Your task to perform on an android device: What's on my calendar tomorrow? Image 0: 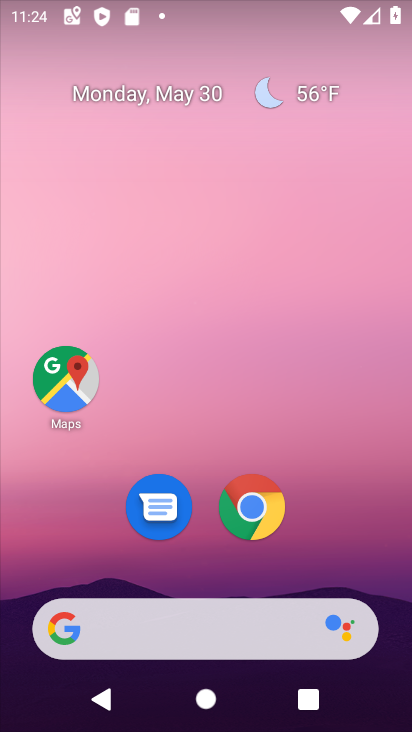
Step 0: press home button
Your task to perform on an android device: What's on my calendar tomorrow? Image 1: 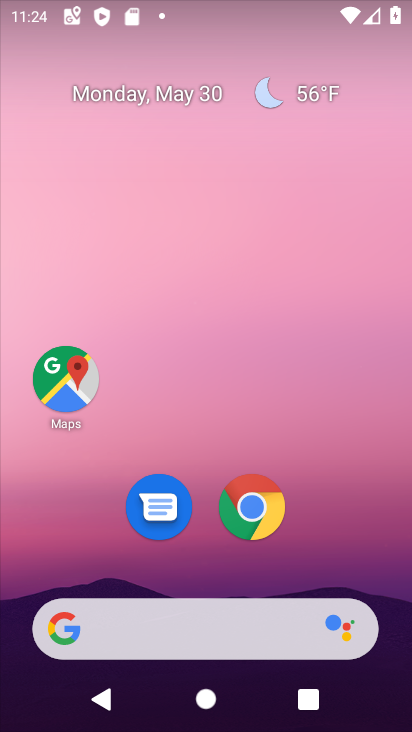
Step 1: drag from (310, 547) to (239, 50)
Your task to perform on an android device: What's on my calendar tomorrow? Image 2: 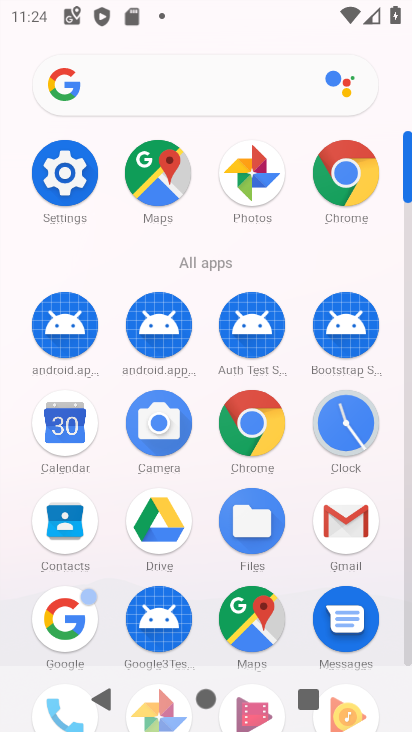
Step 2: click (54, 434)
Your task to perform on an android device: What's on my calendar tomorrow? Image 3: 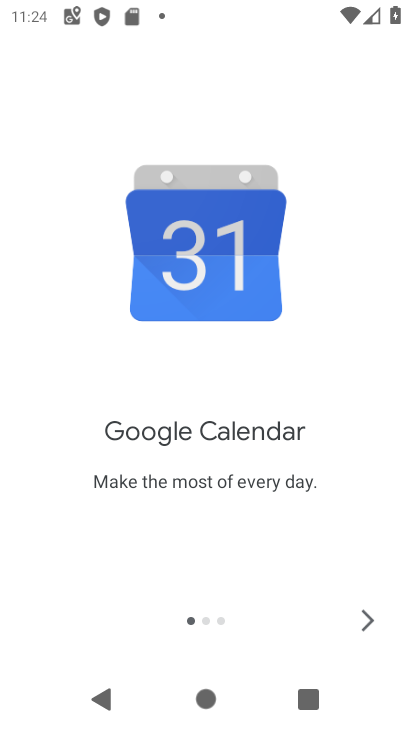
Step 3: click (382, 621)
Your task to perform on an android device: What's on my calendar tomorrow? Image 4: 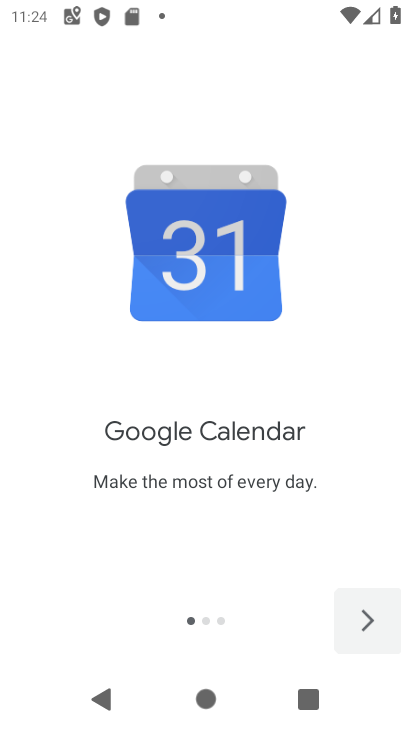
Step 4: click (381, 621)
Your task to perform on an android device: What's on my calendar tomorrow? Image 5: 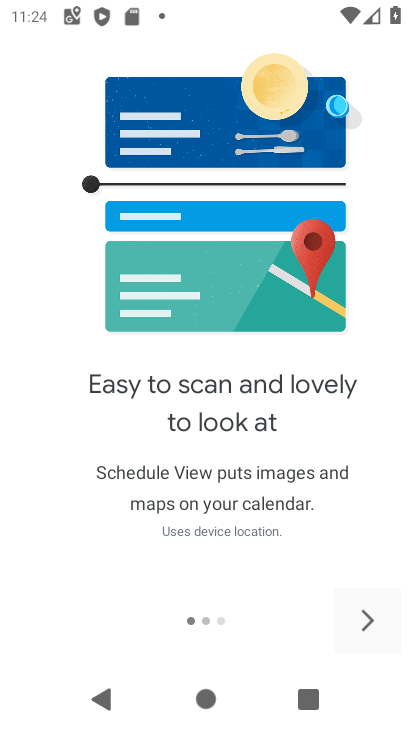
Step 5: click (381, 621)
Your task to perform on an android device: What's on my calendar tomorrow? Image 6: 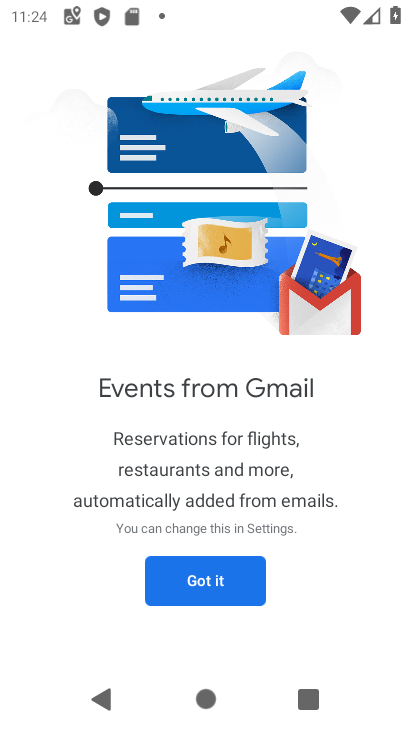
Step 6: click (248, 574)
Your task to perform on an android device: What's on my calendar tomorrow? Image 7: 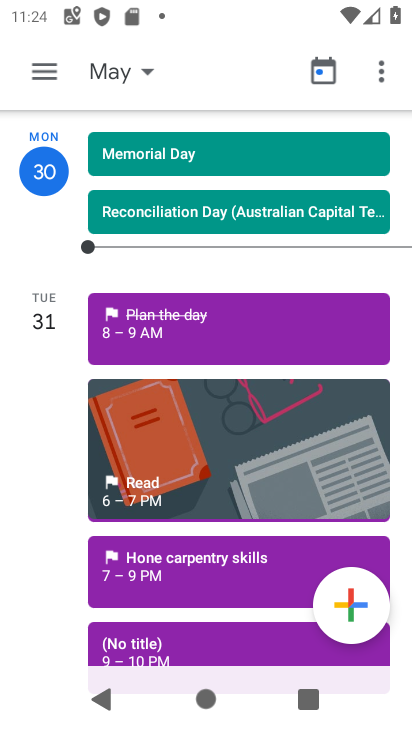
Step 7: task complete